Your task to perform on an android device: Go to ESPN.com Image 0: 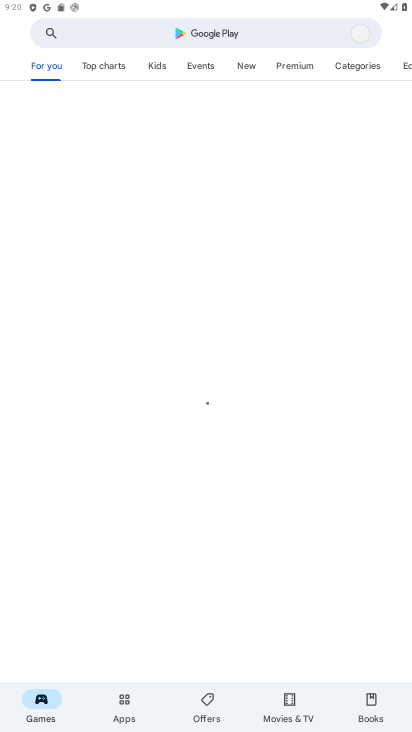
Step 0: press home button
Your task to perform on an android device: Go to ESPN.com Image 1: 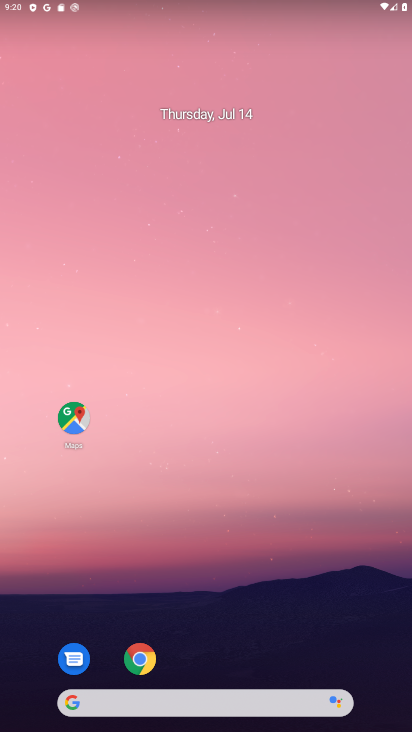
Step 1: click (137, 651)
Your task to perform on an android device: Go to ESPN.com Image 2: 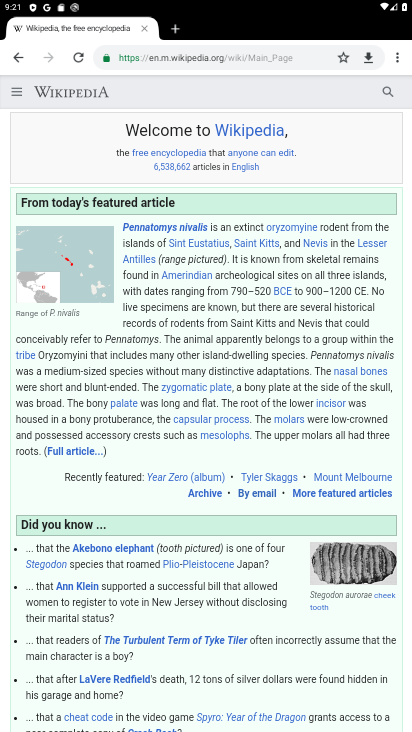
Step 2: click (176, 31)
Your task to perform on an android device: Go to ESPN.com Image 3: 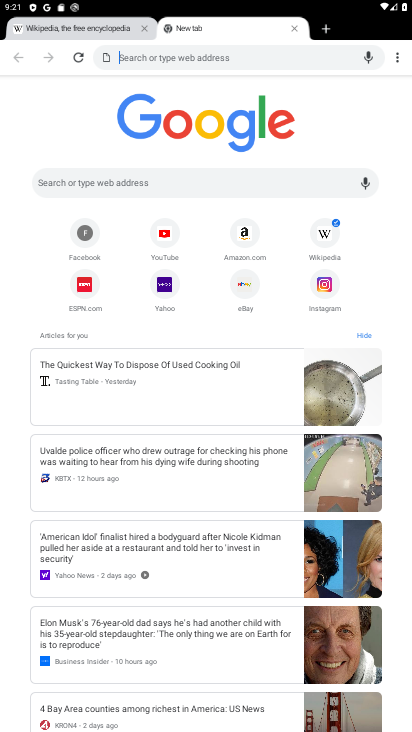
Step 3: click (146, 31)
Your task to perform on an android device: Go to ESPN.com Image 4: 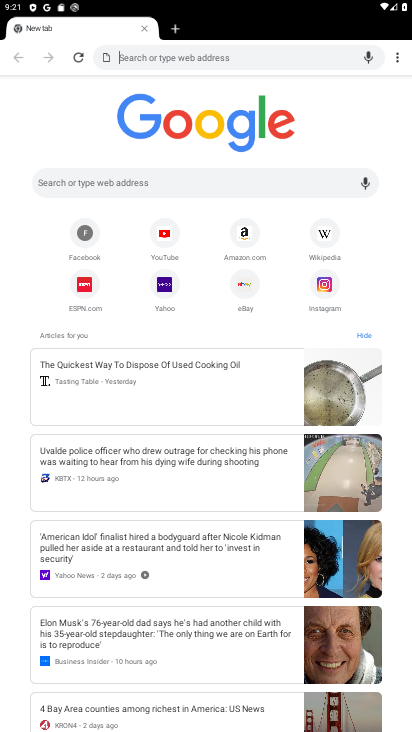
Step 4: click (81, 287)
Your task to perform on an android device: Go to ESPN.com Image 5: 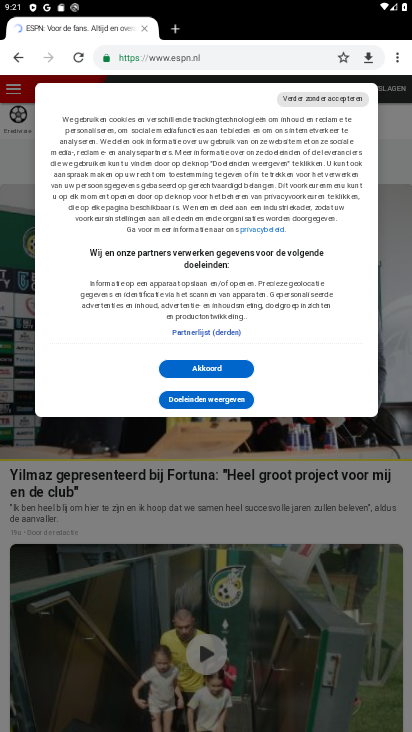
Step 5: task complete